Your task to perform on an android device: turn on improve location accuracy Image 0: 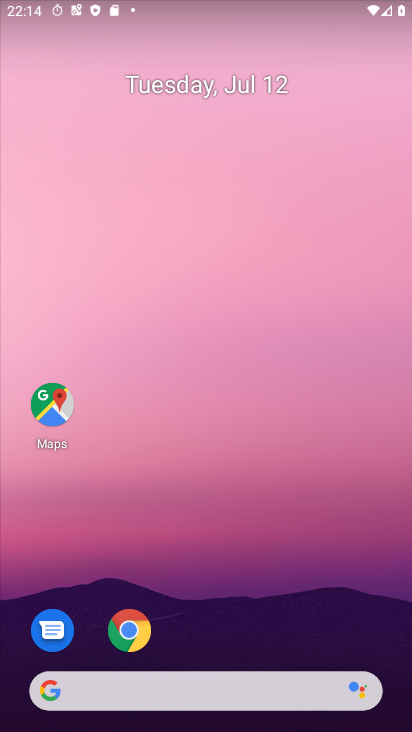
Step 0: drag from (289, 624) to (298, 11)
Your task to perform on an android device: turn on improve location accuracy Image 1: 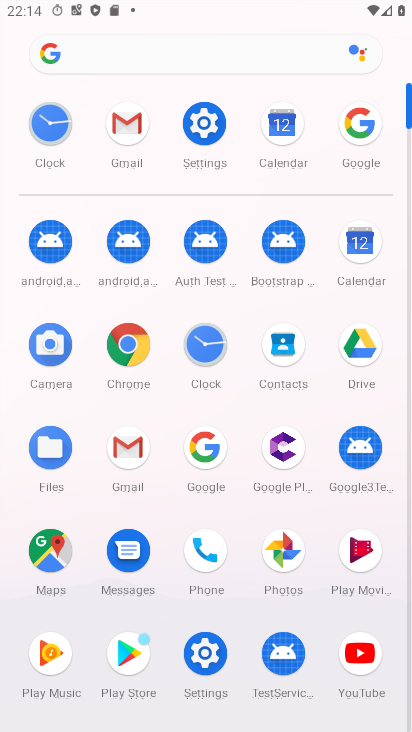
Step 1: click (224, 130)
Your task to perform on an android device: turn on improve location accuracy Image 2: 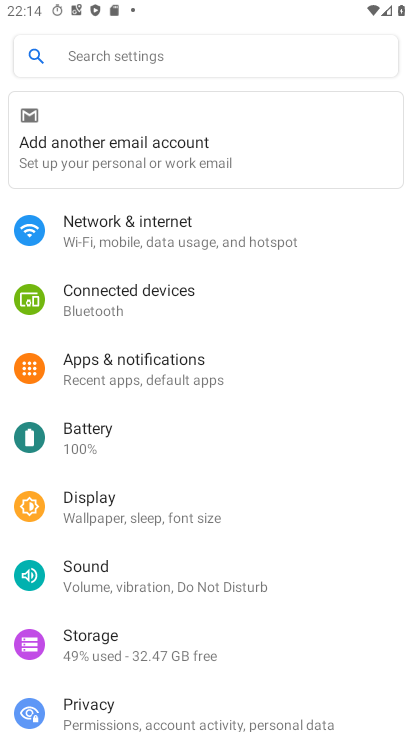
Step 2: drag from (144, 689) to (196, 189)
Your task to perform on an android device: turn on improve location accuracy Image 3: 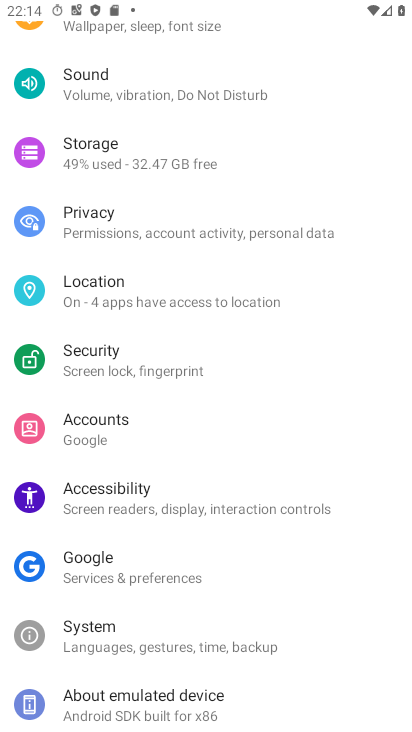
Step 3: click (113, 277)
Your task to perform on an android device: turn on improve location accuracy Image 4: 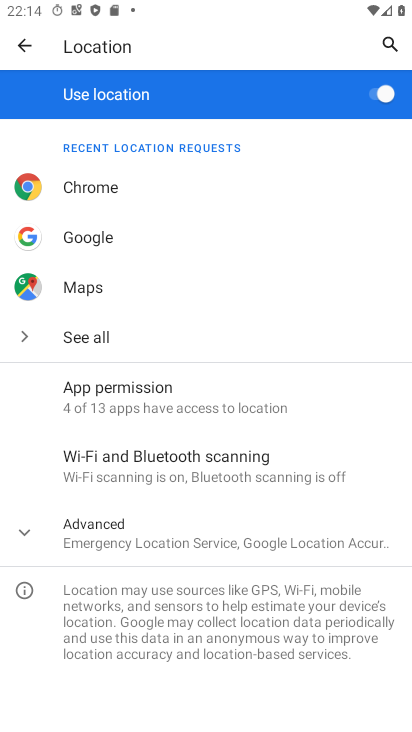
Step 4: click (151, 531)
Your task to perform on an android device: turn on improve location accuracy Image 5: 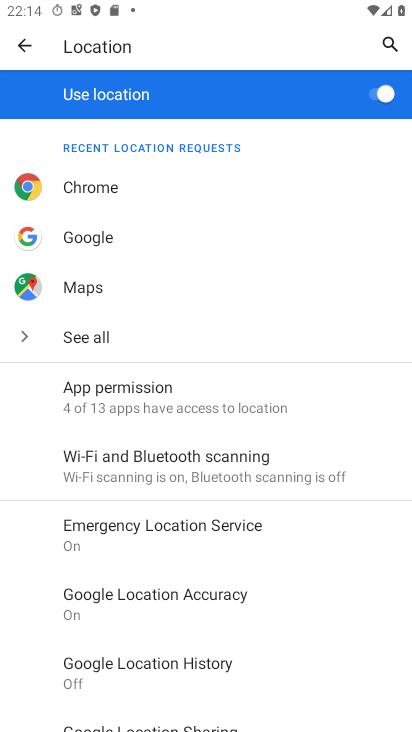
Step 5: click (154, 583)
Your task to perform on an android device: turn on improve location accuracy Image 6: 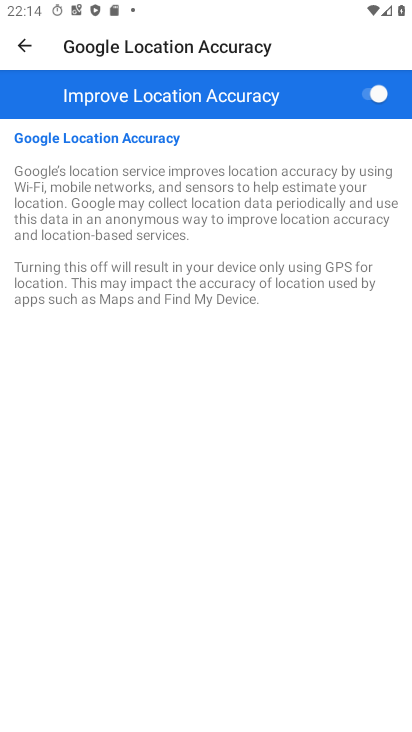
Step 6: task complete